Your task to perform on an android device: Go to ESPN.com Image 0: 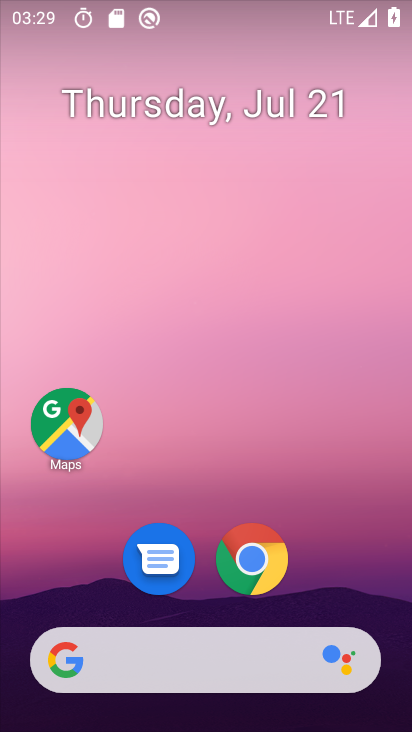
Step 0: drag from (354, 557) to (358, 60)
Your task to perform on an android device: Go to ESPN.com Image 1: 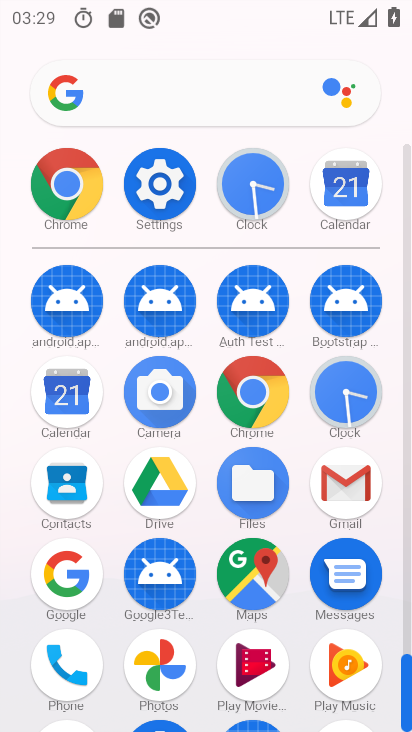
Step 1: click (259, 392)
Your task to perform on an android device: Go to ESPN.com Image 2: 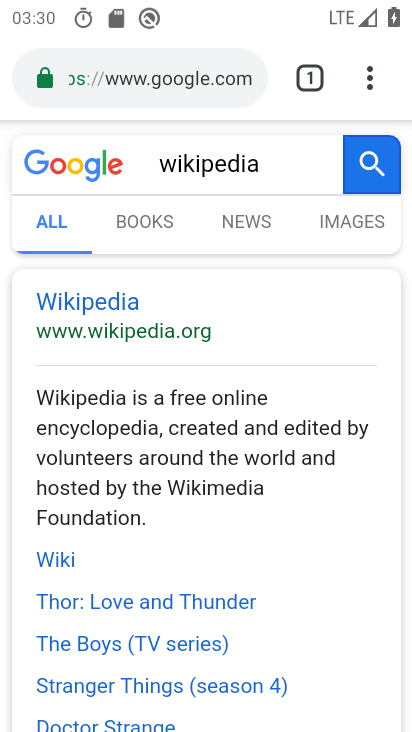
Step 2: click (230, 73)
Your task to perform on an android device: Go to ESPN.com Image 3: 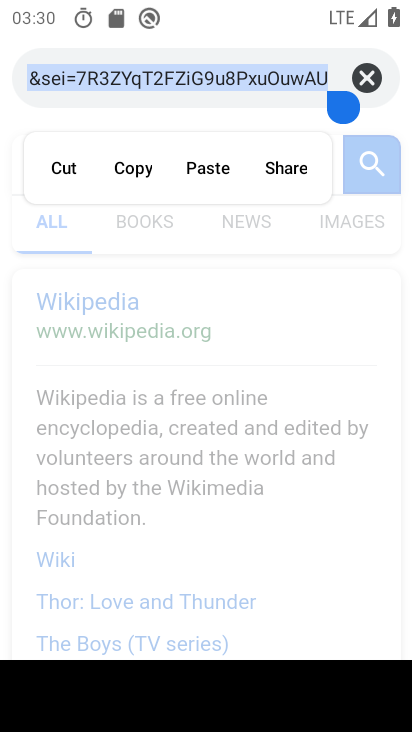
Step 3: type "espn.com"
Your task to perform on an android device: Go to ESPN.com Image 4: 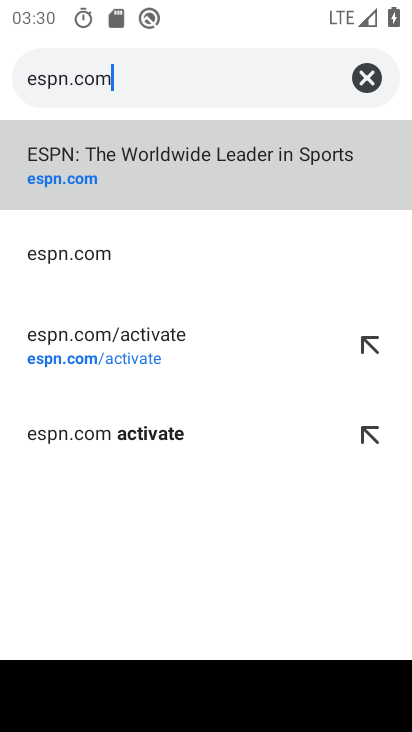
Step 4: click (339, 169)
Your task to perform on an android device: Go to ESPN.com Image 5: 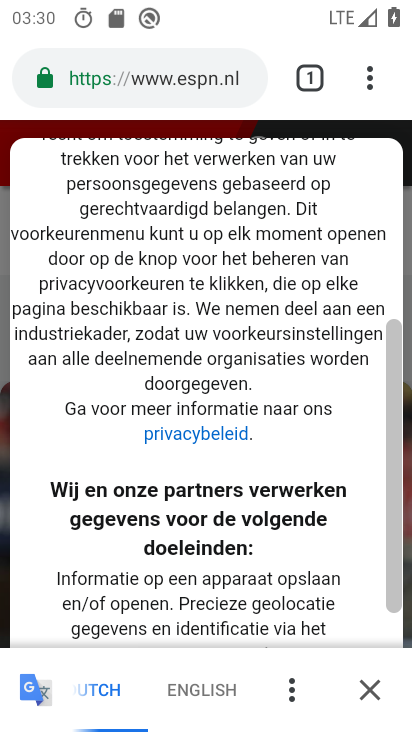
Step 5: task complete